Your task to perform on an android device: empty trash in google photos Image 0: 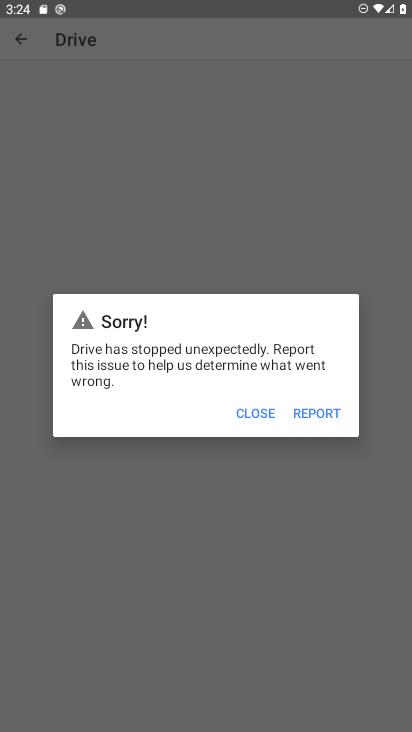
Step 0: press home button
Your task to perform on an android device: empty trash in google photos Image 1: 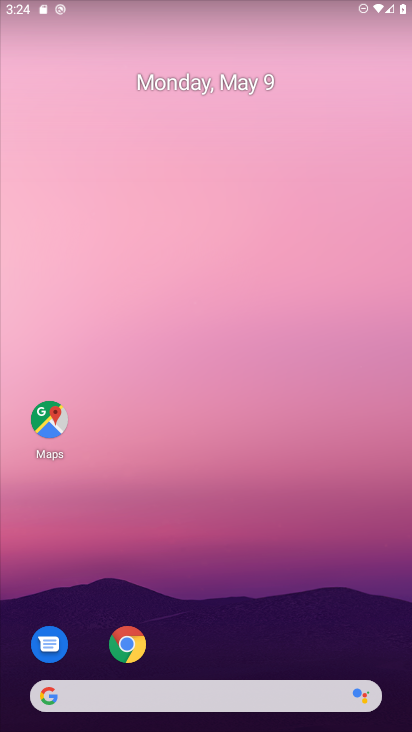
Step 1: drag from (247, 502) to (280, 165)
Your task to perform on an android device: empty trash in google photos Image 2: 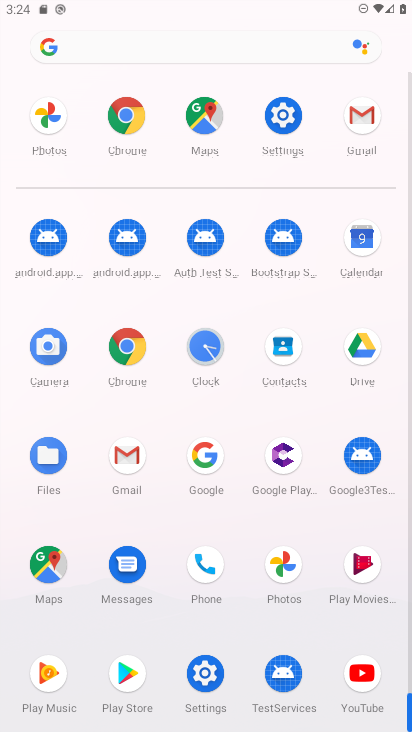
Step 2: drag from (256, 664) to (319, 259)
Your task to perform on an android device: empty trash in google photos Image 3: 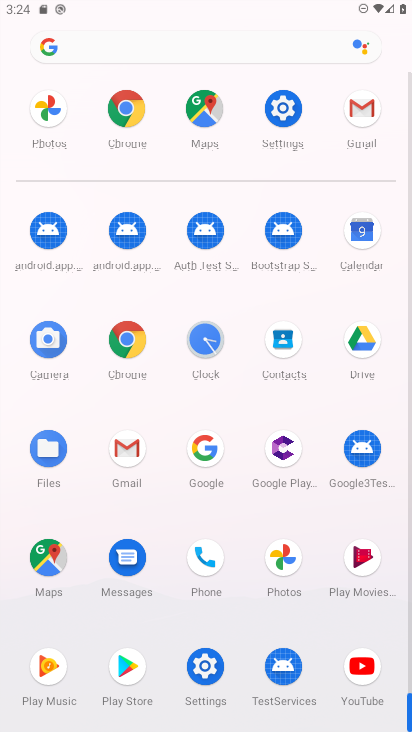
Step 3: click (289, 580)
Your task to perform on an android device: empty trash in google photos Image 4: 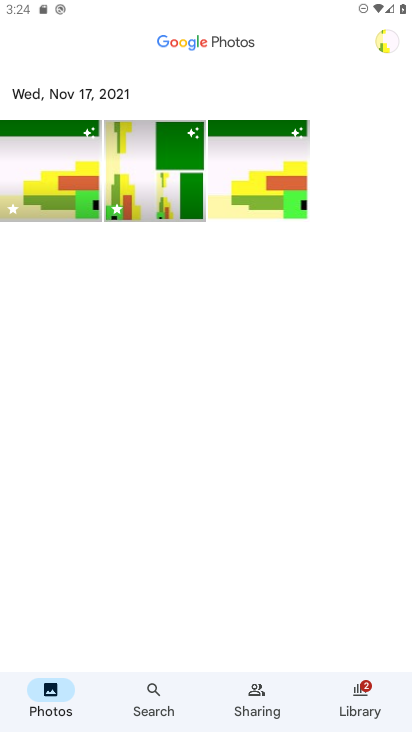
Step 4: click (392, 45)
Your task to perform on an android device: empty trash in google photos Image 5: 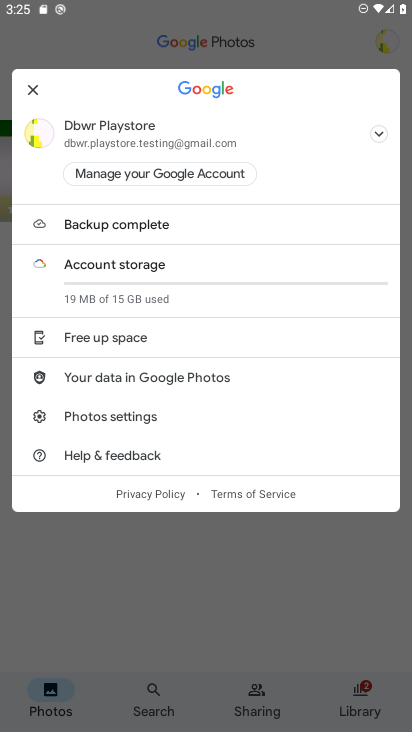
Step 5: click (157, 419)
Your task to perform on an android device: empty trash in google photos Image 6: 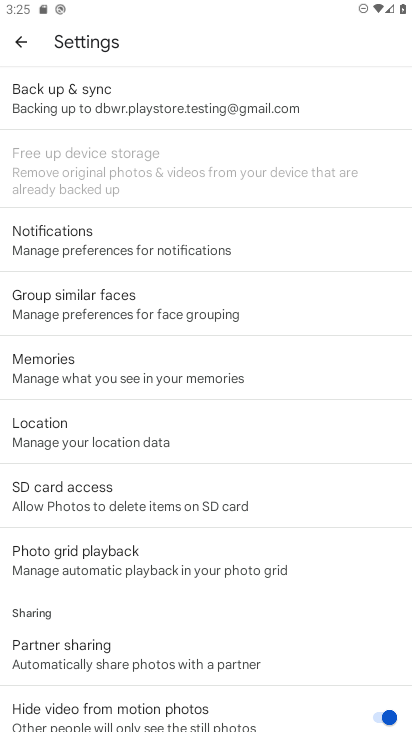
Step 6: drag from (116, 627) to (205, 203)
Your task to perform on an android device: empty trash in google photos Image 7: 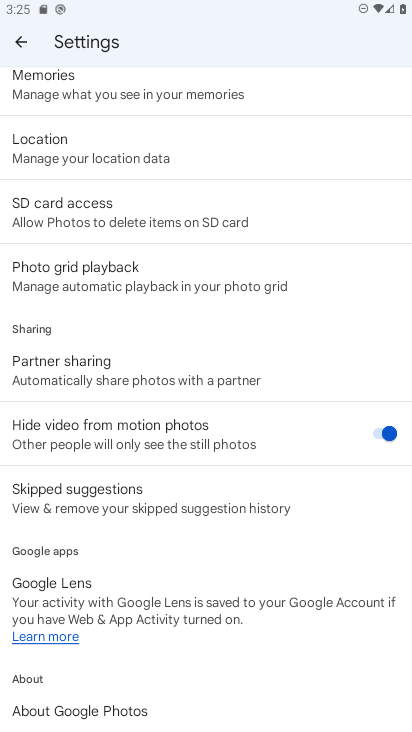
Step 7: drag from (165, 589) to (242, 220)
Your task to perform on an android device: empty trash in google photos Image 8: 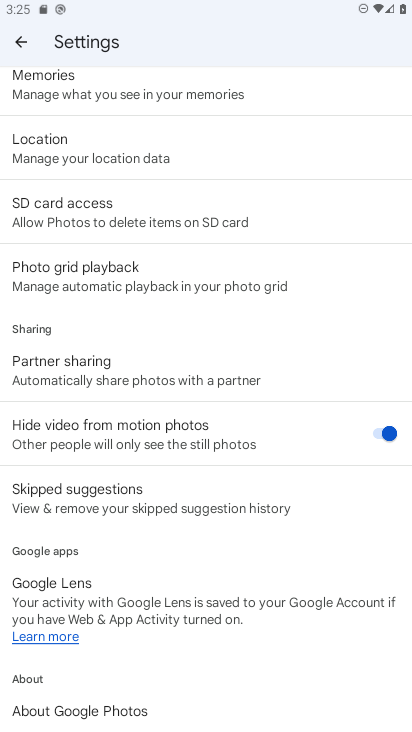
Step 8: drag from (215, 260) to (203, 646)
Your task to perform on an android device: empty trash in google photos Image 9: 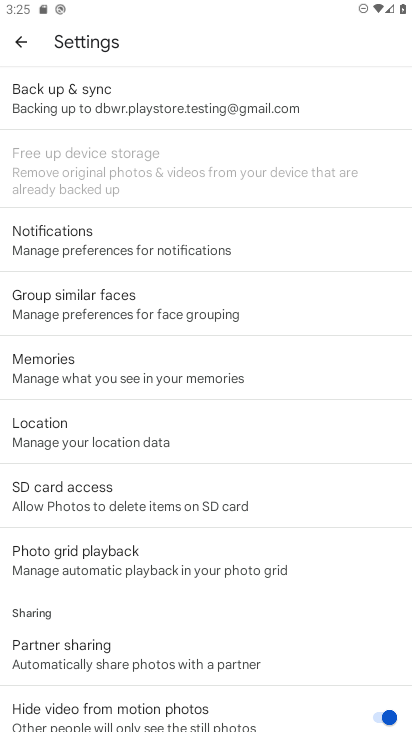
Step 9: drag from (214, 322) to (214, 517)
Your task to perform on an android device: empty trash in google photos Image 10: 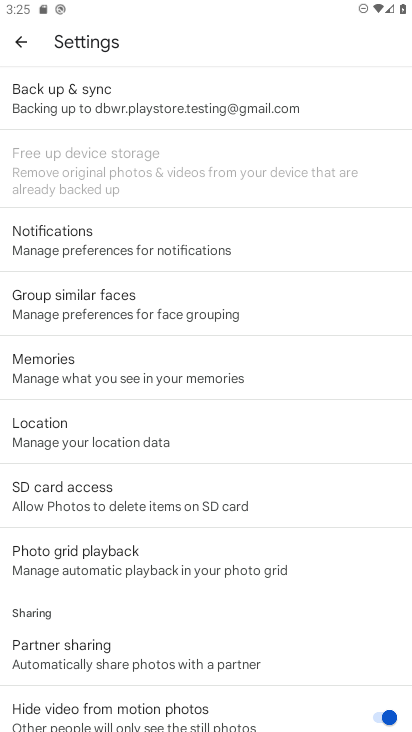
Step 10: click (14, 42)
Your task to perform on an android device: empty trash in google photos Image 11: 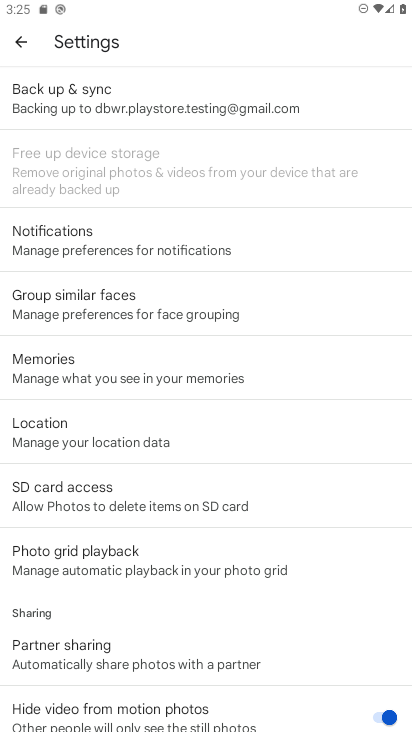
Step 11: click (19, 39)
Your task to perform on an android device: empty trash in google photos Image 12: 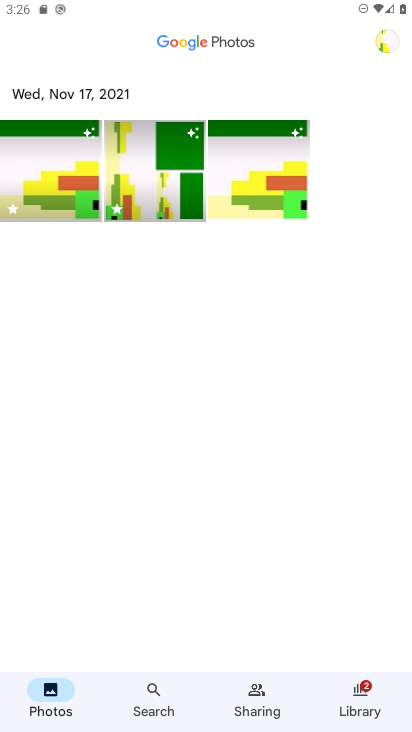
Step 12: press home button
Your task to perform on an android device: empty trash in google photos Image 13: 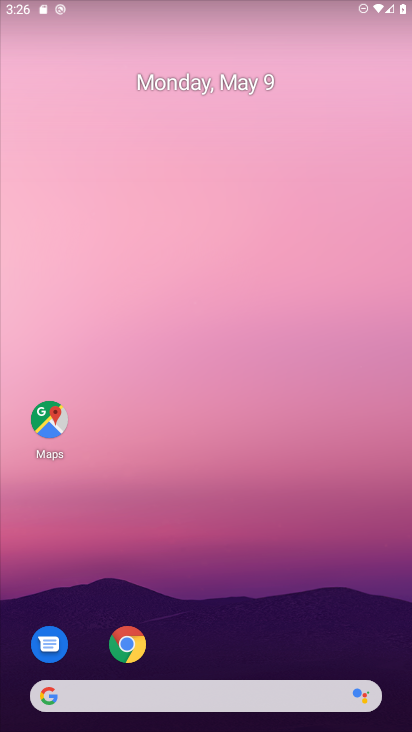
Step 13: drag from (283, 607) to (291, 190)
Your task to perform on an android device: empty trash in google photos Image 14: 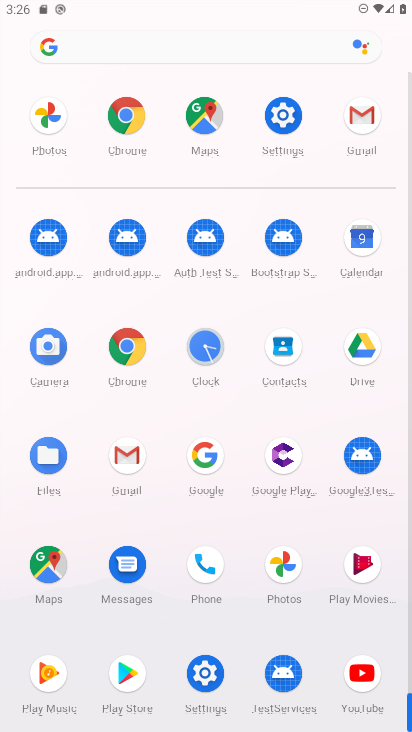
Step 14: click (290, 586)
Your task to perform on an android device: empty trash in google photos Image 15: 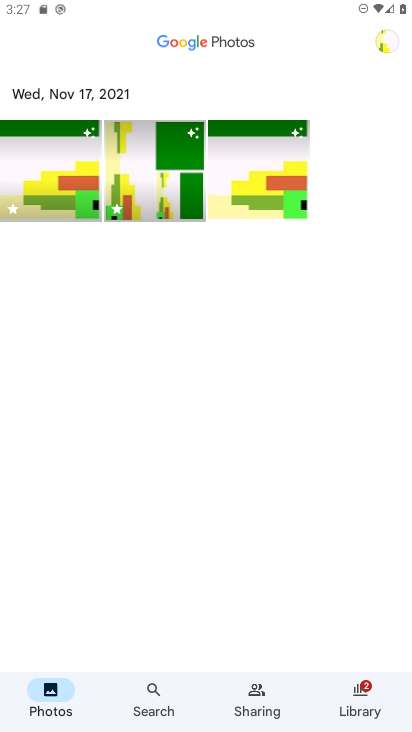
Step 15: click (382, 36)
Your task to perform on an android device: empty trash in google photos Image 16: 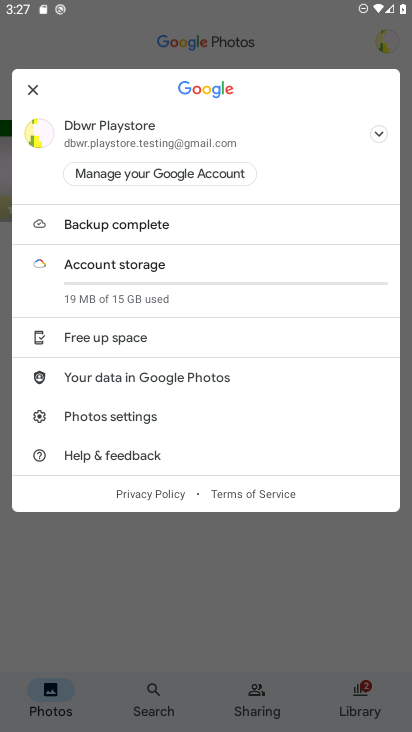
Step 16: task complete